Your task to perform on an android device: Go to location settings Image 0: 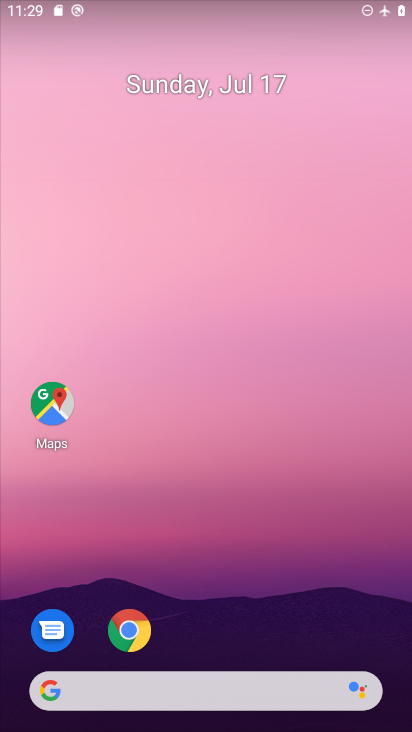
Step 0: drag from (175, 465) to (196, 51)
Your task to perform on an android device: Go to location settings Image 1: 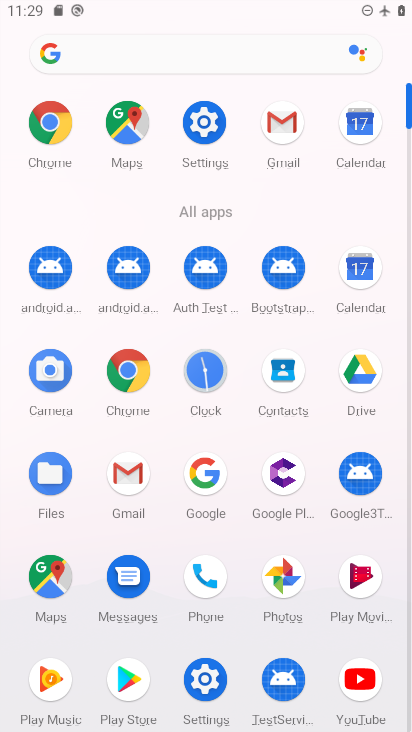
Step 1: click (211, 684)
Your task to perform on an android device: Go to location settings Image 2: 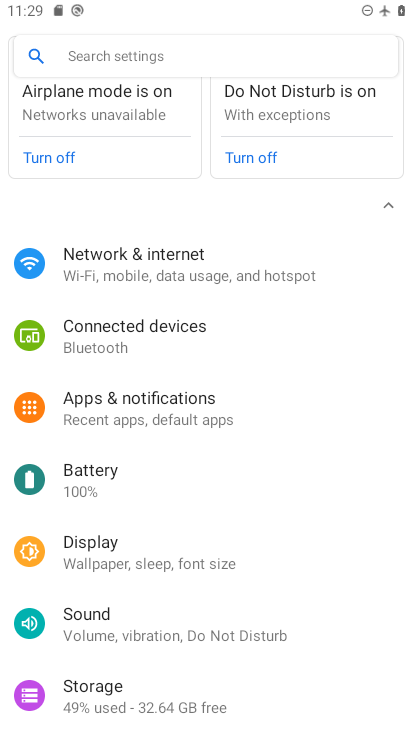
Step 2: drag from (188, 508) to (188, 390)
Your task to perform on an android device: Go to location settings Image 3: 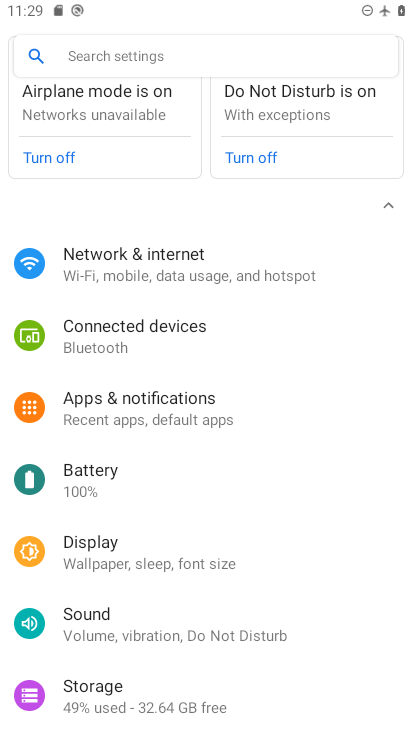
Step 3: drag from (127, 560) to (122, 298)
Your task to perform on an android device: Go to location settings Image 4: 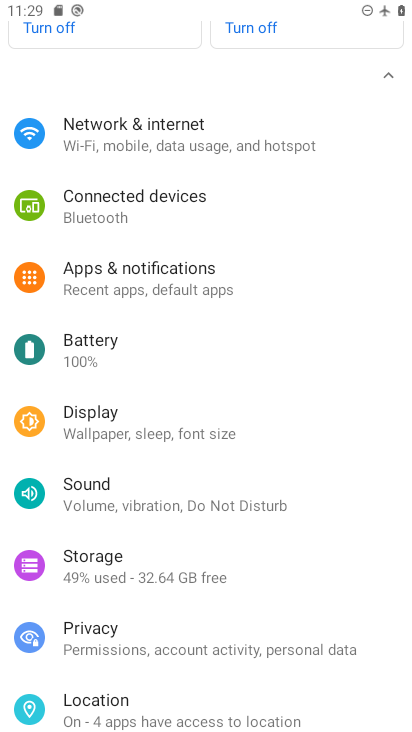
Step 4: click (85, 717)
Your task to perform on an android device: Go to location settings Image 5: 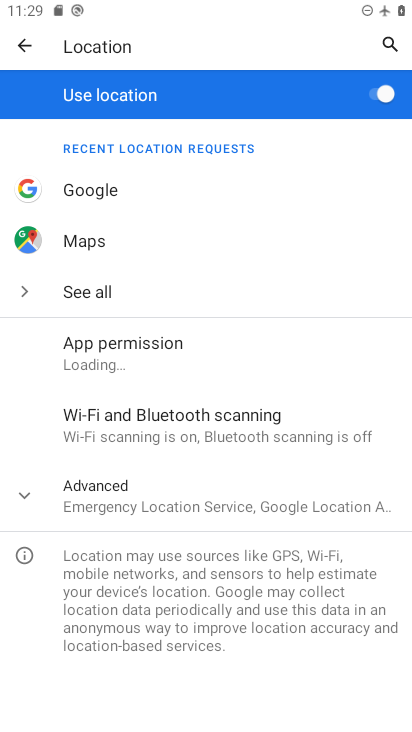
Step 5: task complete